Your task to perform on an android device: choose inbox layout in the gmail app Image 0: 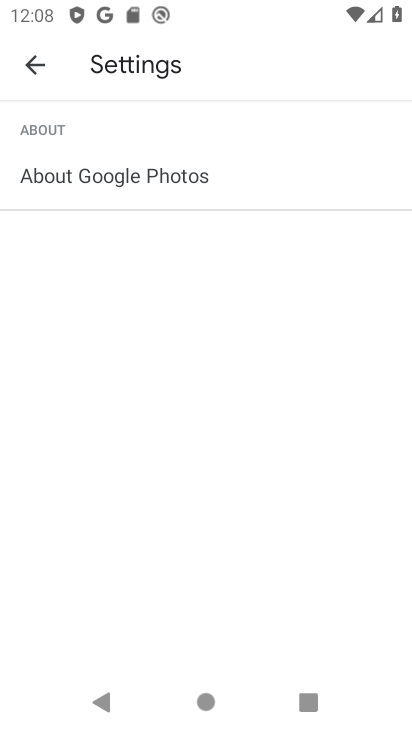
Step 0: click (32, 60)
Your task to perform on an android device: choose inbox layout in the gmail app Image 1: 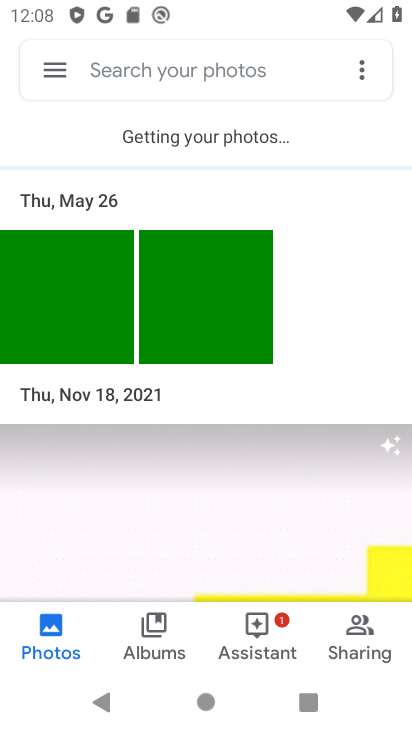
Step 1: press back button
Your task to perform on an android device: choose inbox layout in the gmail app Image 2: 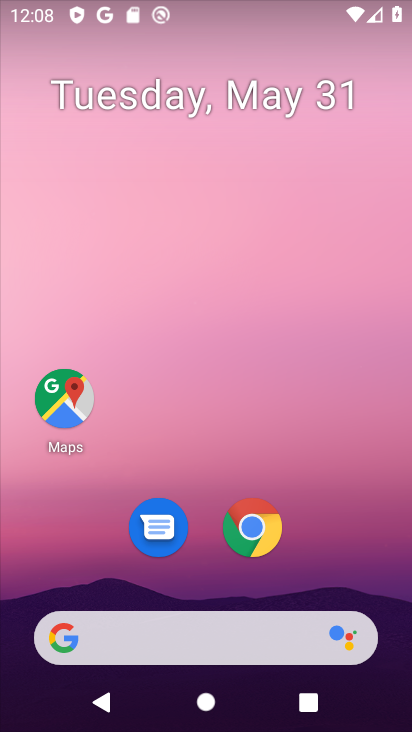
Step 2: drag from (258, 705) to (123, 199)
Your task to perform on an android device: choose inbox layout in the gmail app Image 3: 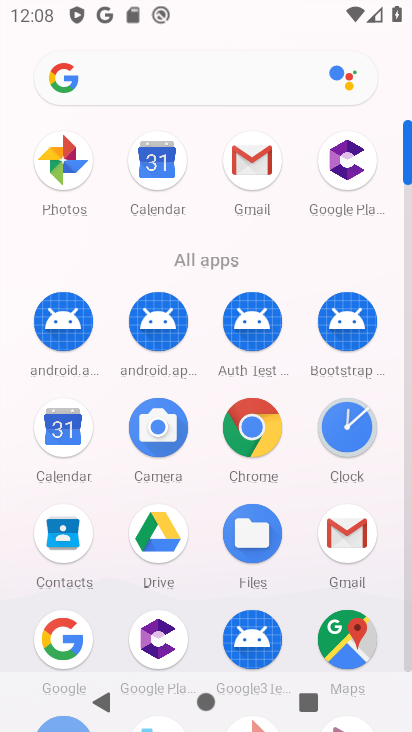
Step 3: click (346, 531)
Your task to perform on an android device: choose inbox layout in the gmail app Image 4: 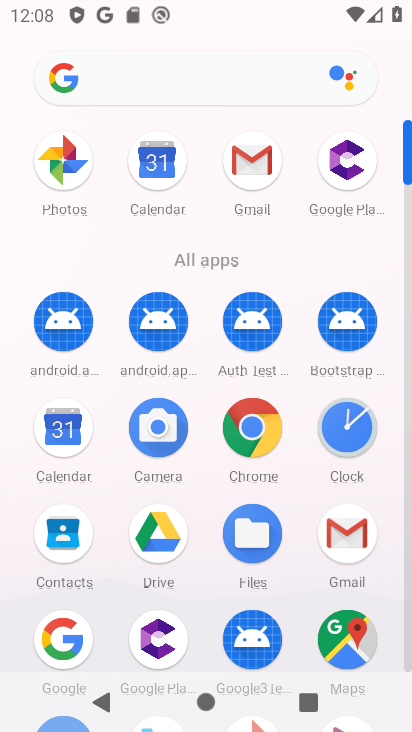
Step 4: click (347, 531)
Your task to perform on an android device: choose inbox layout in the gmail app Image 5: 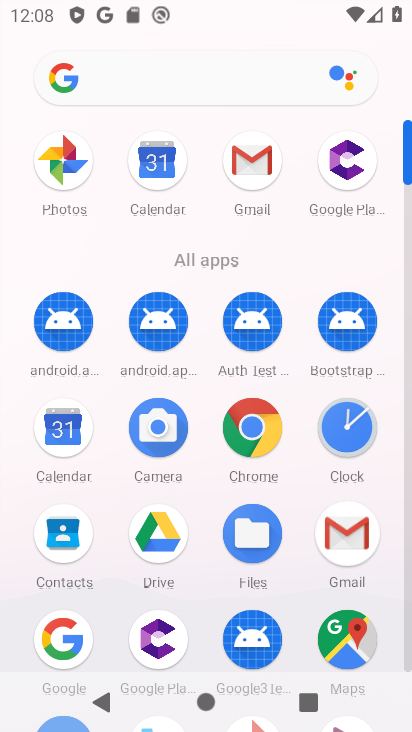
Step 5: click (347, 531)
Your task to perform on an android device: choose inbox layout in the gmail app Image 6: 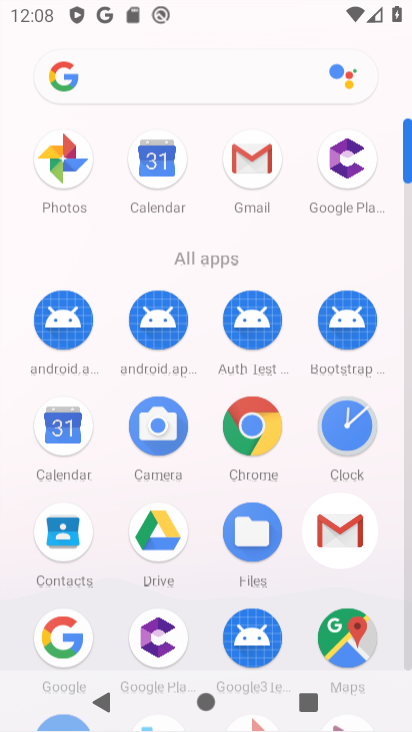
Step 6: click (350, 530)
Your task to perform on an android device: choose inbox layout in the gmail app Image 7: 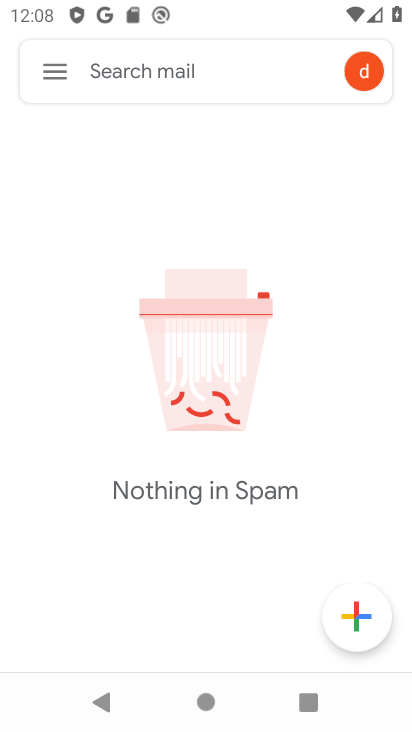
Step 7: click (54, 74)
Your task to perform on an android device: choose inbox layout in the gmail app Image 8: 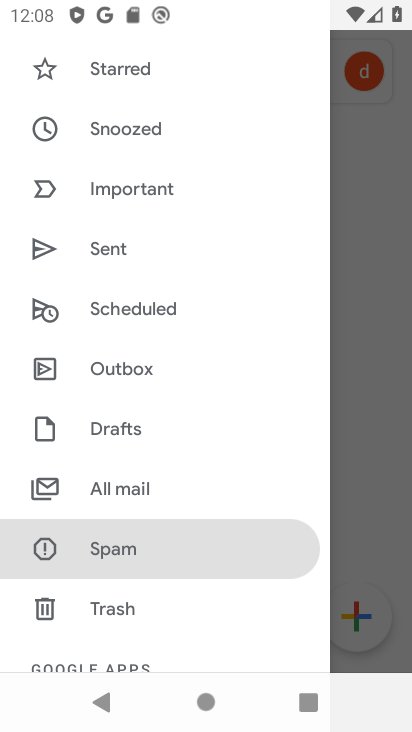
Step 8: click (129, 484)
Your task to perform on an android device: choose inbox layout in the gmail app Image 9: 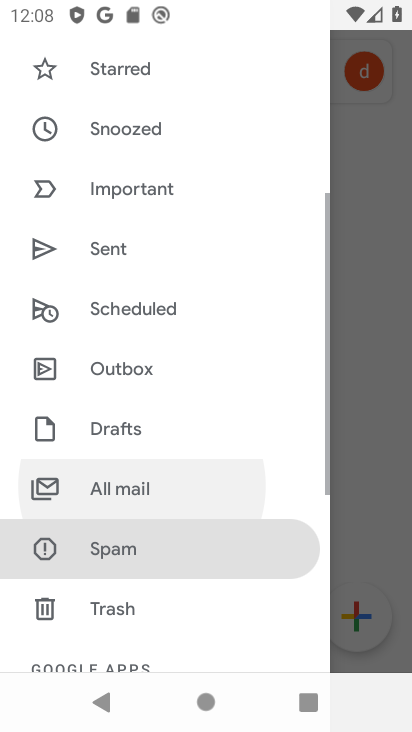
Step 9: click (129, 484)
Your task to perform on an android device: choose inbox layout in the gmail app Image 10: 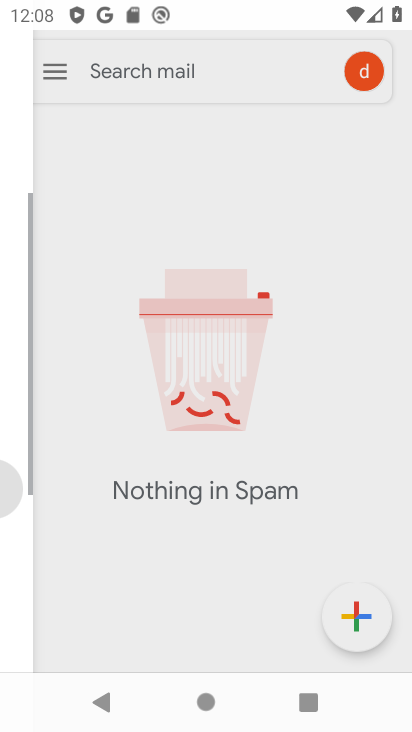
Step 10: click (124, 482)
Your task to perform on an android device: choose inbox layout in the gmail app Image 11: 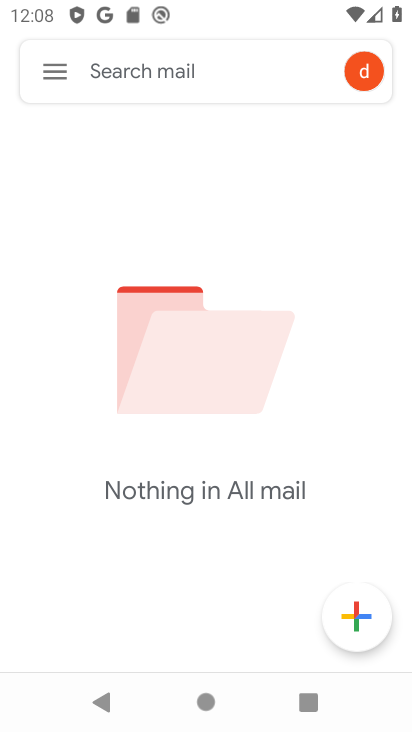
Step 11: task complete